Your task to perform on an android device: toggle show notifications on the lock screen Image 0: 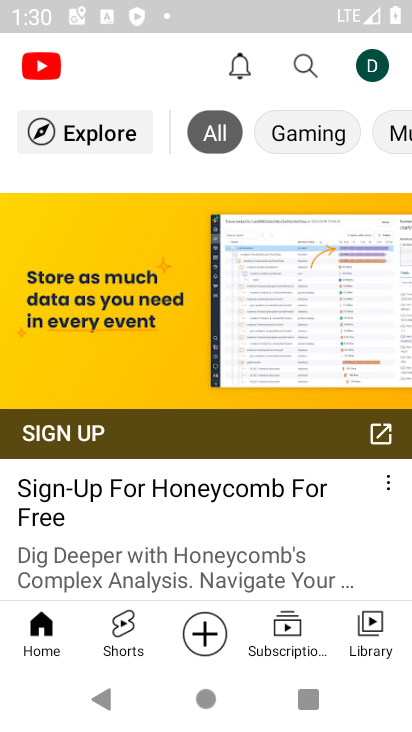
Step 0: press home button
Your task to perform on an android device: toggle show notifications on the lock screen Image 1: 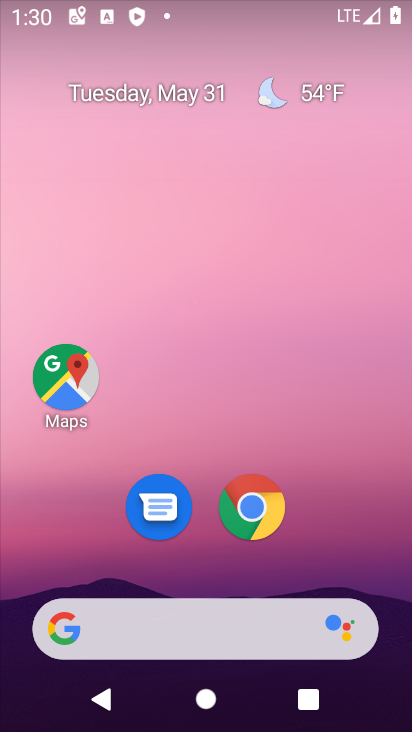
Step 1: drag from (399, 628) to (287, 119)
Your task to perform on an android device: toggle show notifications on the lock screen Image 2: 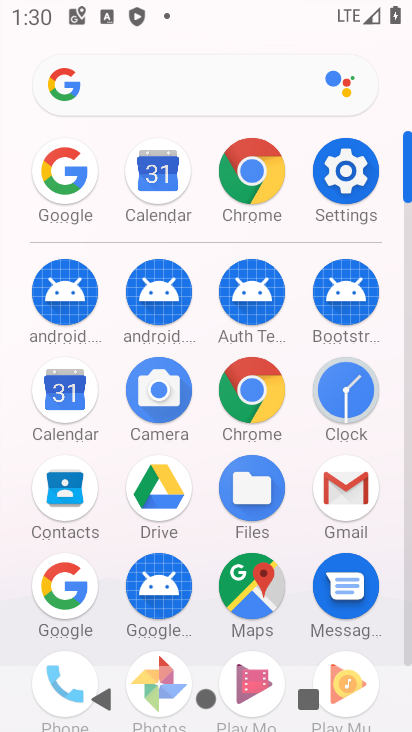
Step 2: click (360, 166)
Your task to perform on an android device: toggle show notifications on the lock screen Image 3: 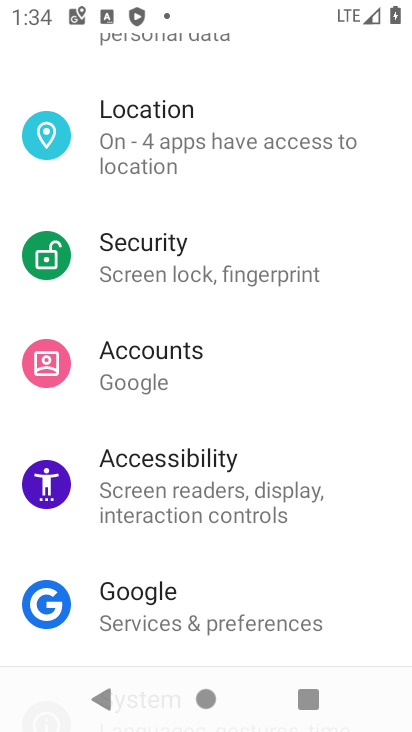
Step 3: task complete